Your task to perform on an android device: toggle translation in the chrome app Image 0: 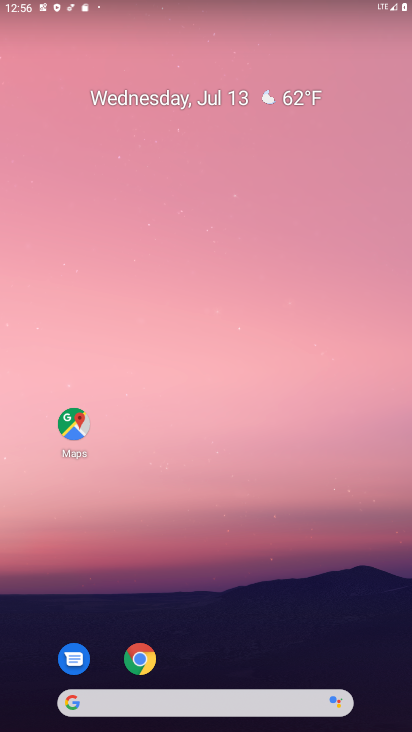
Step 0: drag from (221, 687) to (221, 87)
Your task to perform on an android device: toggle translation in the chrome app Image 1: 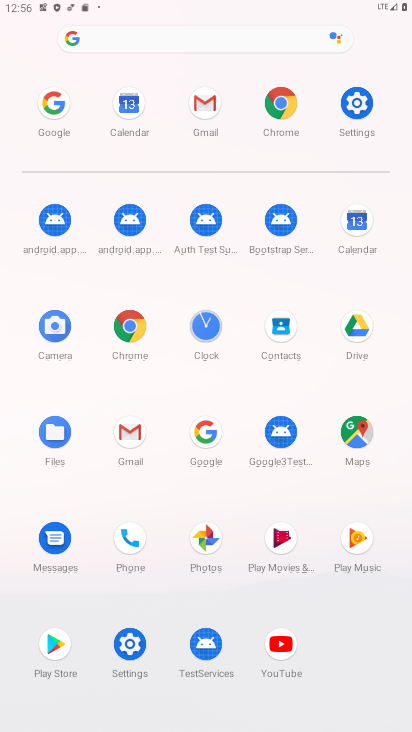
Step 1: click (282, 102)
Your task to perform on an android device: toggle translation in the chrome app Image 2: 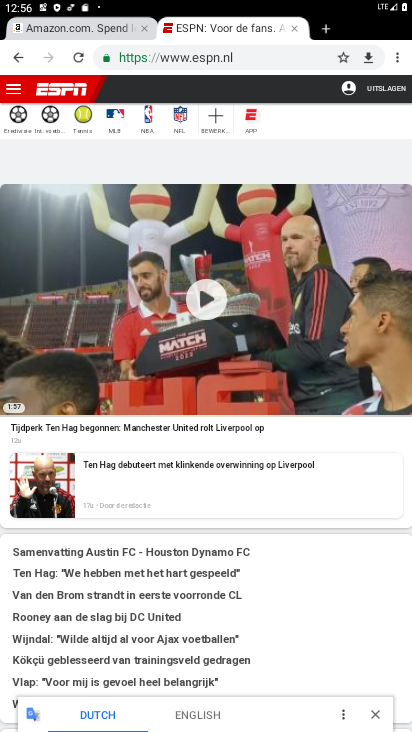
Step 2: click (398, 57)
Your task to perform on an android device: toggle translation in the chrome app Image 3: 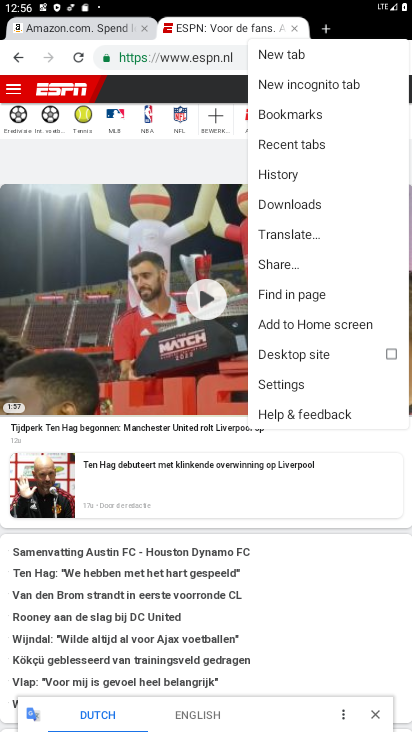
Step 3: click (287, 381)
Your task to perform on an android device: toggle translation in the chrome app Image 4: 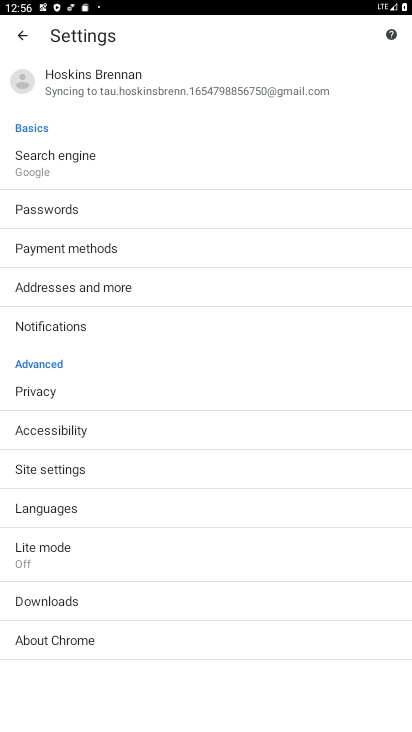
Step 4: click (48, 509)
Your task to perform on an android device: toggle translation in the chrome app Image 5: 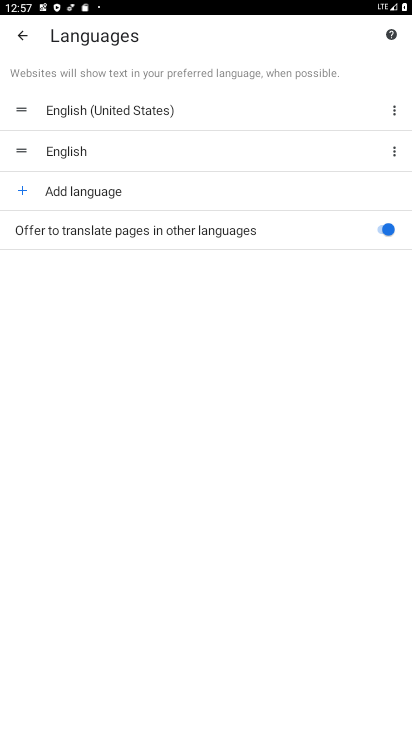
Step 5: click (381, 224)
Your task to perform on an android device: toggle translation in the chrome app Image 6: 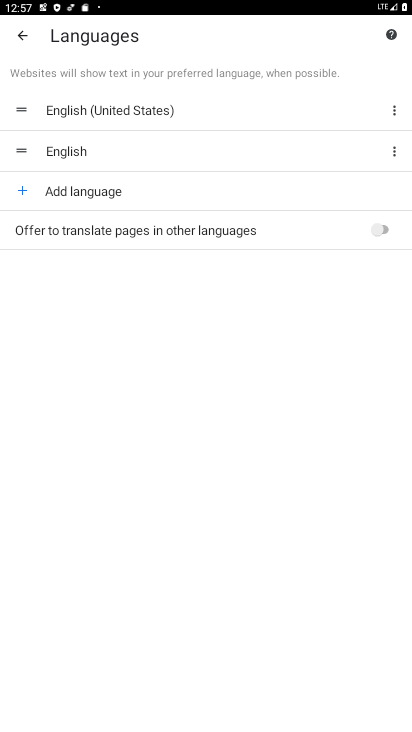
Step 6: task complete